Your task to perform on an android device: Check the news Image 0: 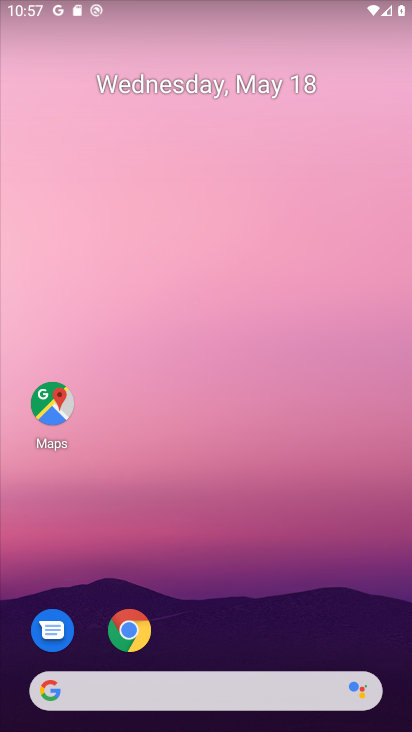
Step 0: drag from (288, 610) to (270, 524)
Your task to perform on an android device: Check the news Image 1: 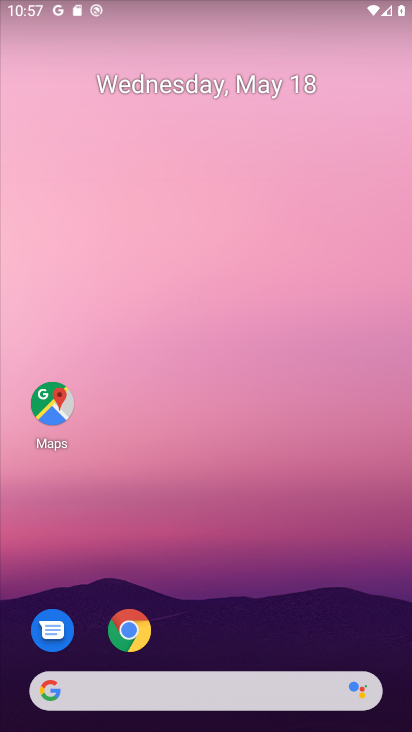
Step 1: task complete